Your task to perform on an android device: see tabs open on other devices in the chrome app Image 0: 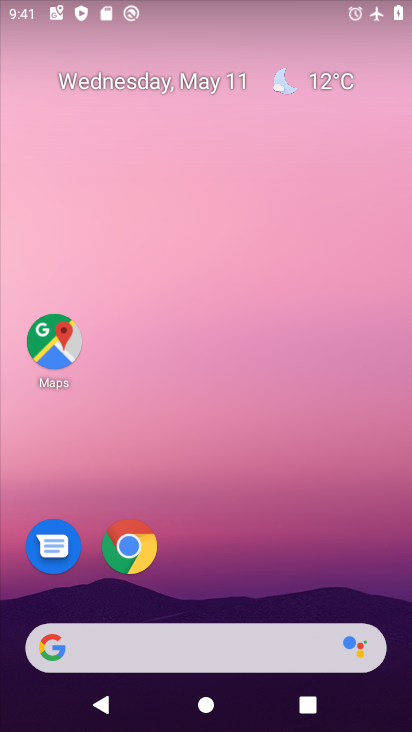
Step 0: click (124, 546)
Your task to perform on an android device: see tabs open on other devices in the chrome app Image 1: 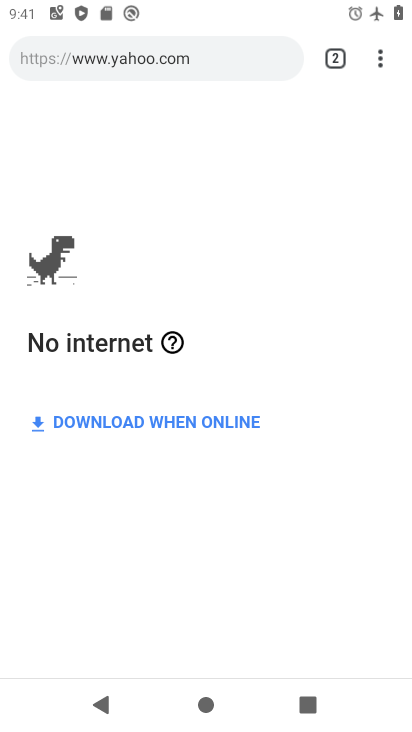
Step 1: click (380, 61)
Your task to perform on an android device: see tabs open on other devices in the chrome app Image 2: 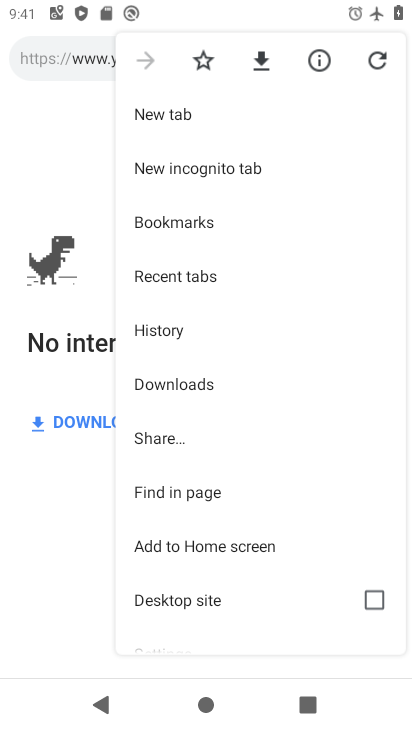
Step 2: click (157, 277)
Your task to perform on an android device: see tabs open on other devices in the chrome app Image 3: 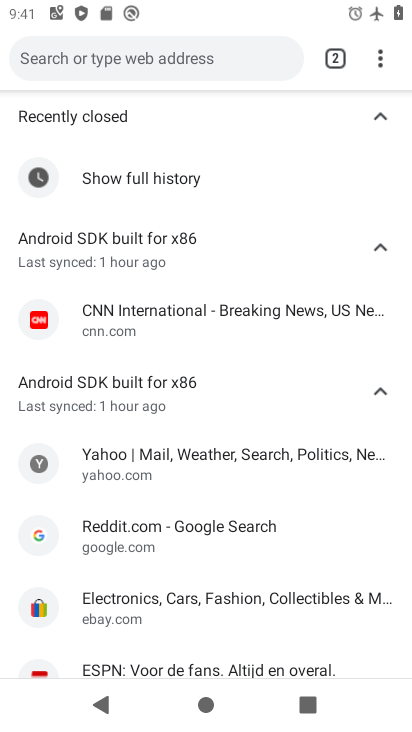
Step 3: task complete